Your task to perform on an android device: Search for seafood restaurants on Google Maps Image 0: 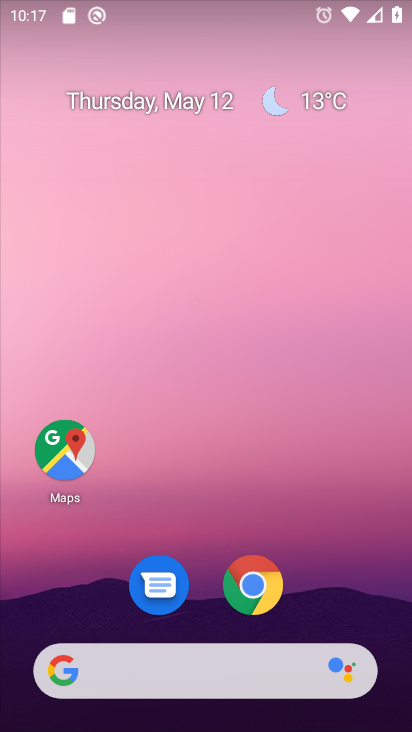
Step 0: click (81, 451)
Your task to perform on an android device: Search for seafood restaurants on Google Maps Image 1: 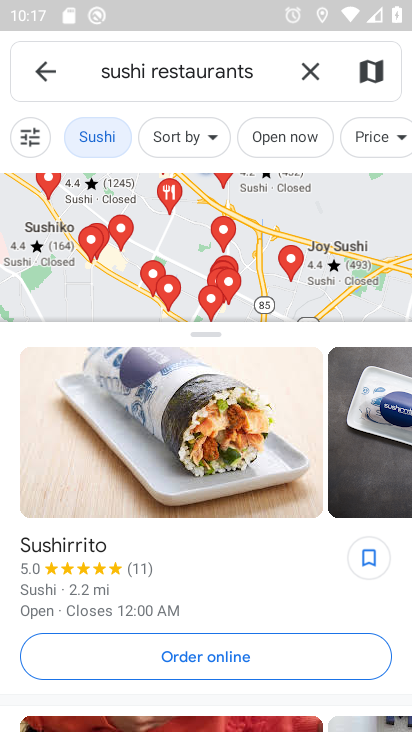
Step 1: click (311, 68)
Your task to perform on an android device: Search for seafood restaurants on Google Maps Image 2: 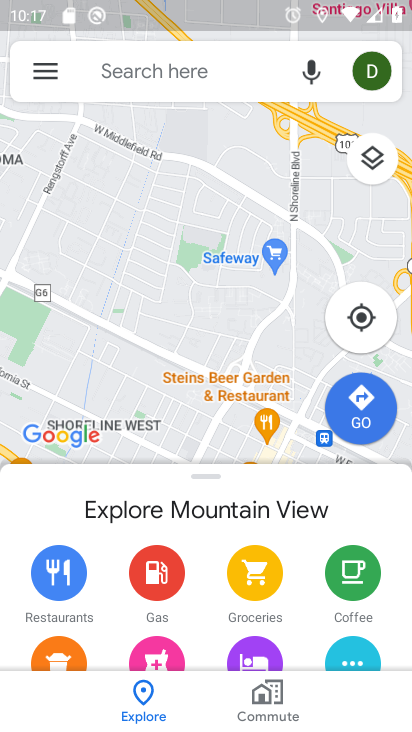
Step 2: click (202, 62)
Your task to perform on an android device: Search for seafood restaurants on Google Maps Image 3: 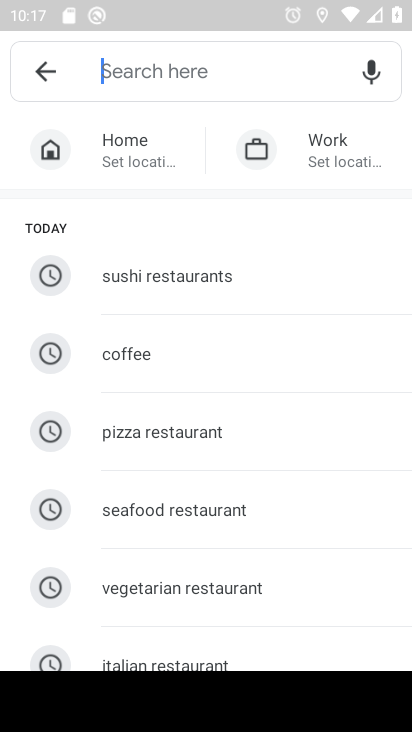
Step 3: click (190, 500)
Your task to perform on an android device: Search for seafood restaurants on Google Maps Image 4: 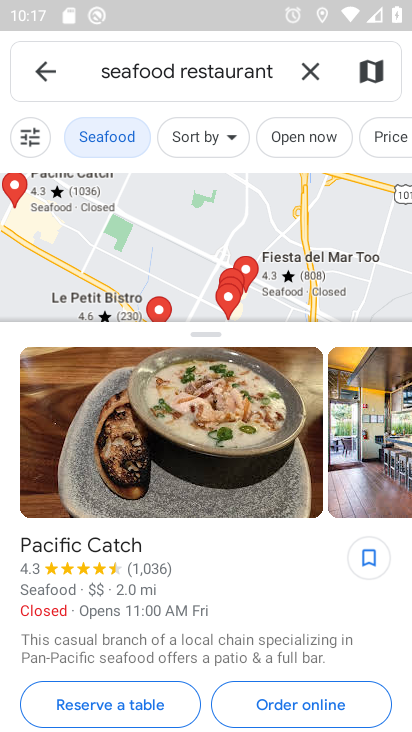
Step 4: task complete